Your task to perform on an android device: Go to Android settings Image 0: 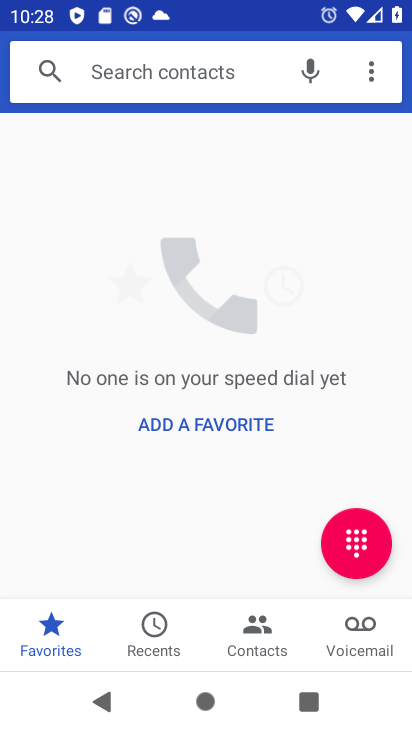
Step 0: press home button
Your task to perform on an android device: Go to Android settings Image 1: 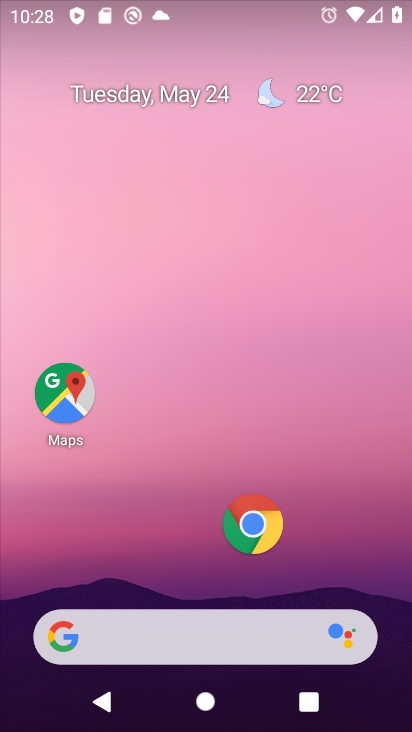
Step 1: drag from (158, 565) to (245, 8)
Your task to perform on an android device: Go to Android settings Image 2: 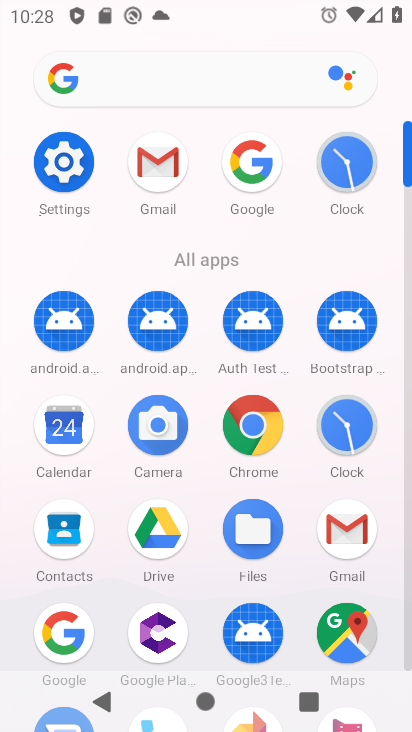
Step 2: click (76, 168)
Your task to perform on an android device: Go to Android settings Image 3: 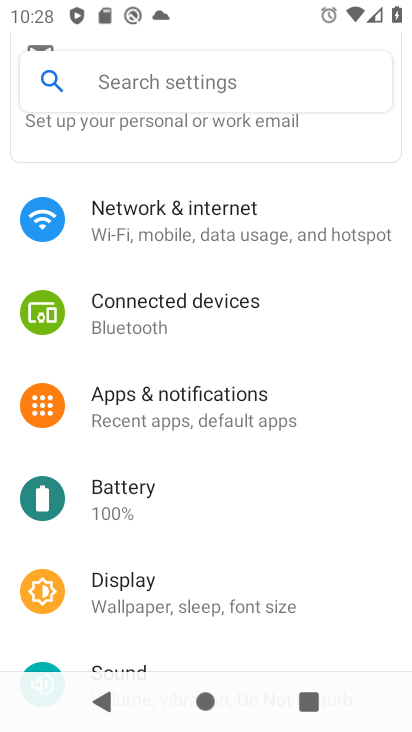
Step 3: drag from (235, 589) to (298, 105)
Your task to perform on an android device: Go to Android settings Image 4: 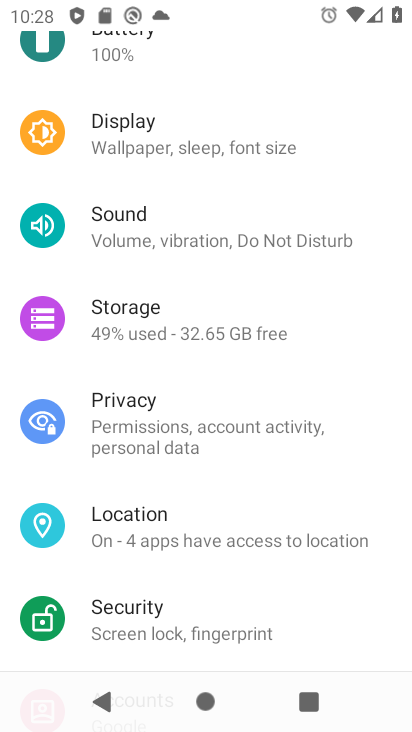
Step 4: drag from (249, 586) to (334, 111)
Your task to perform on an android device: Go to Android settings Image 5: 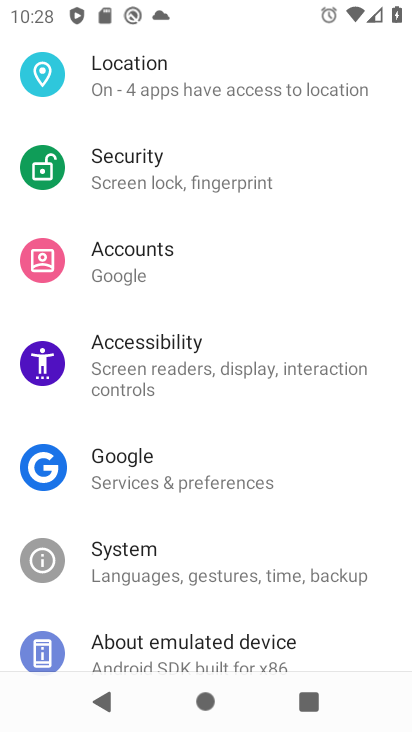
Step 5: click (205, 633)
Your task to perform on an android device: Go to Android settings Image 6: 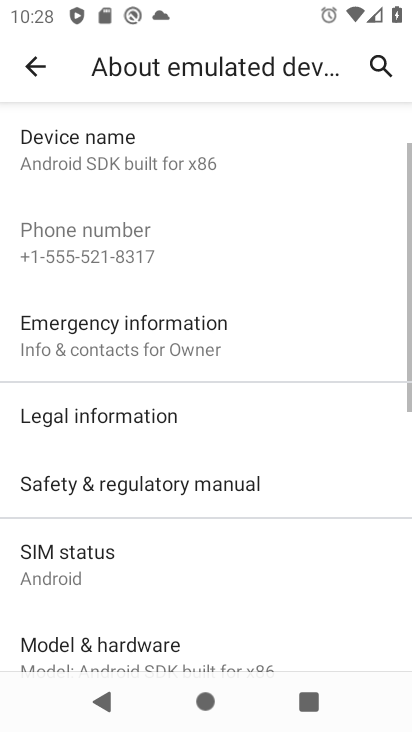
Step 6: task complete